Your task to perform on an android device: turn off location history Image 0: 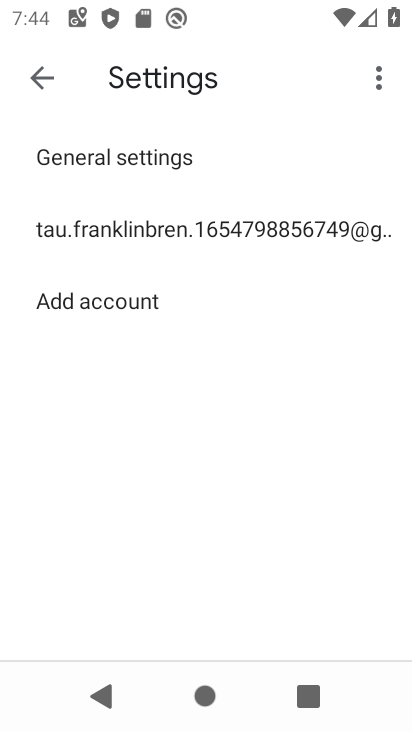
Step 0: press back button
Your task to perform on an android device: turn off location history Image 1: 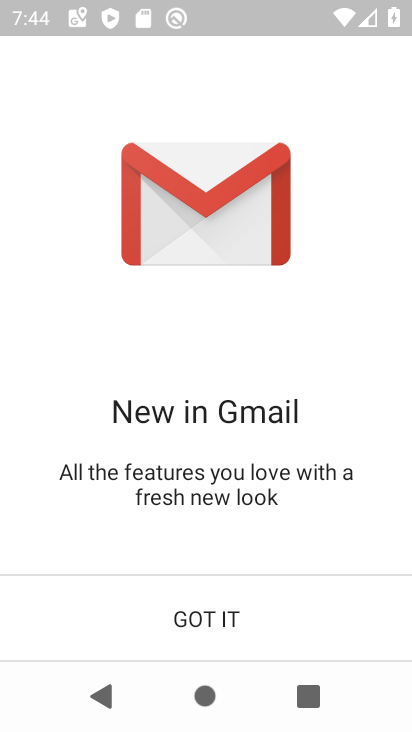
Step 1: press back button
Your task to perform on an android device: turn off location history Image 2: 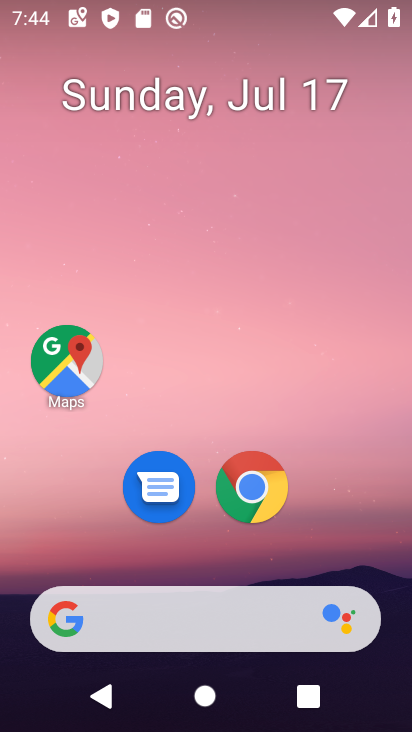
Step 2: drag from (148, 567) to (195, 12)
Your task to perform on an android device: turn off location history Image 3: 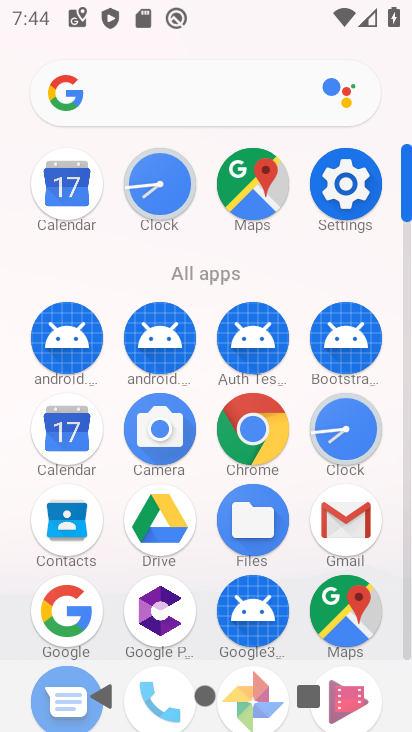
Step 3: click (340, 187)
Your task to perform on an android device: turn off location history Image 4: 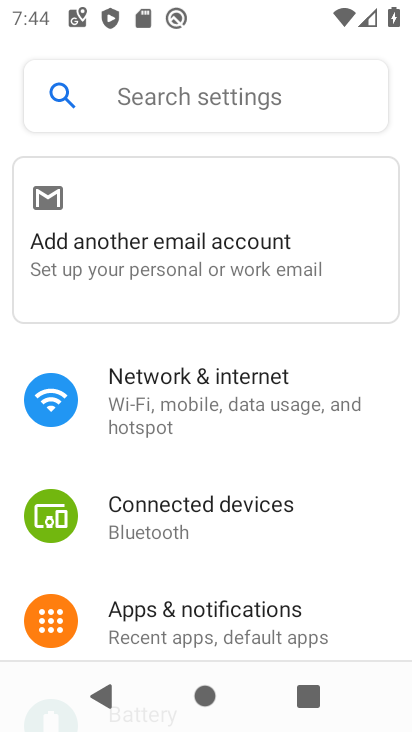
Step 4: drag from (218, 457) to (269, 100)
Your task to perform on an android device: turn off location history Image 5: 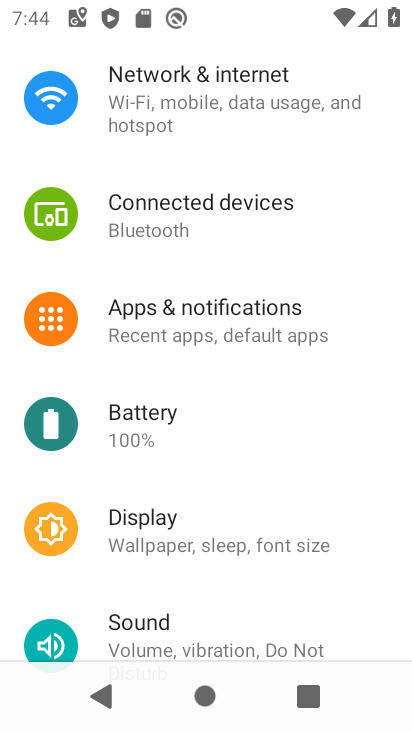
Step 5: drag from (186, 586) to (289, 100)
Your task to perform on an android device: turn off location history Image 6: 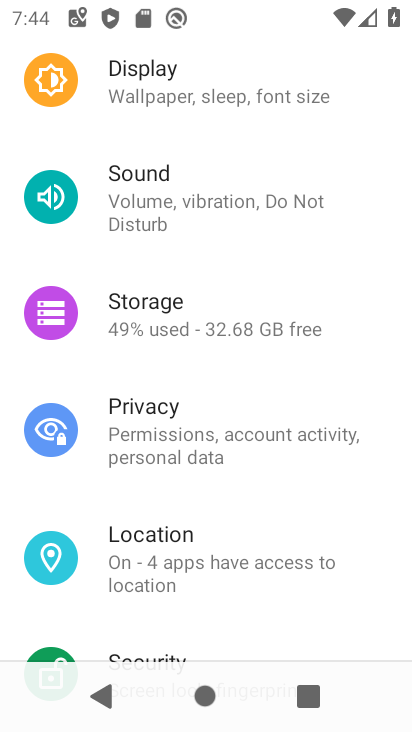
Step 6: click (165, 553)
Your task to perform on an android device: turn off location history Image 7: 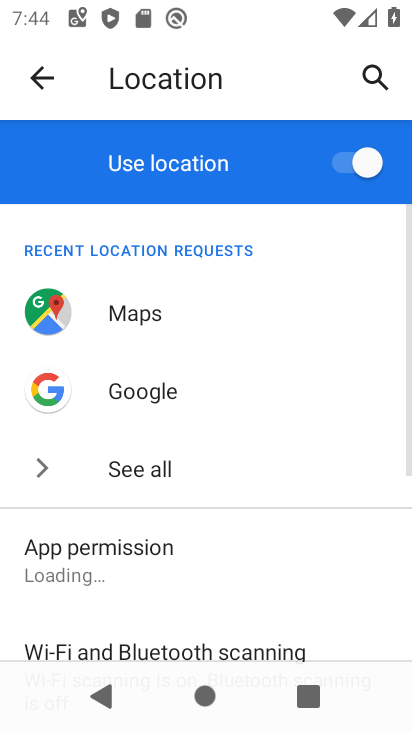
Step 7: drag from (160, 623) to (258, 57)
Your task to perform on an android device: turn off location history Image 8: 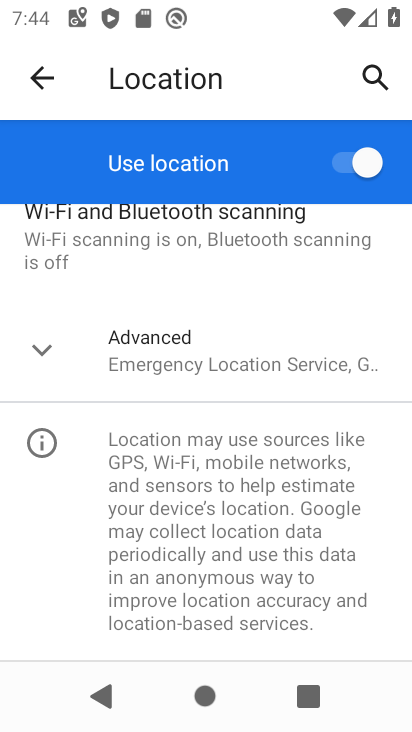
Step 8: click (137, 364)
Your task to perform on an android device: turn off location history Image 9: 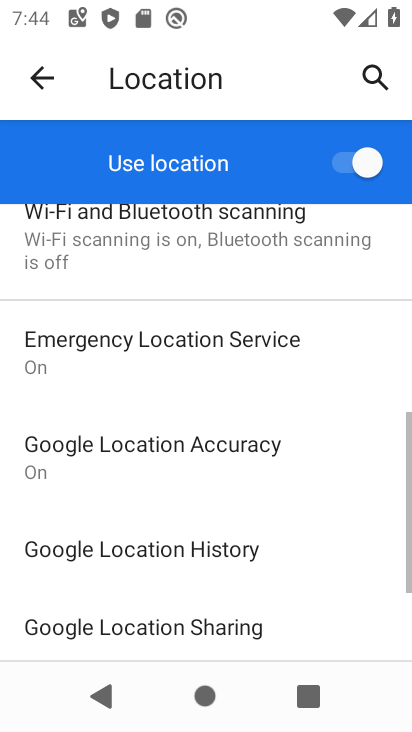
Step 9: click (172, 550)
Your task to perform on an android device: turn off location history Image 10: 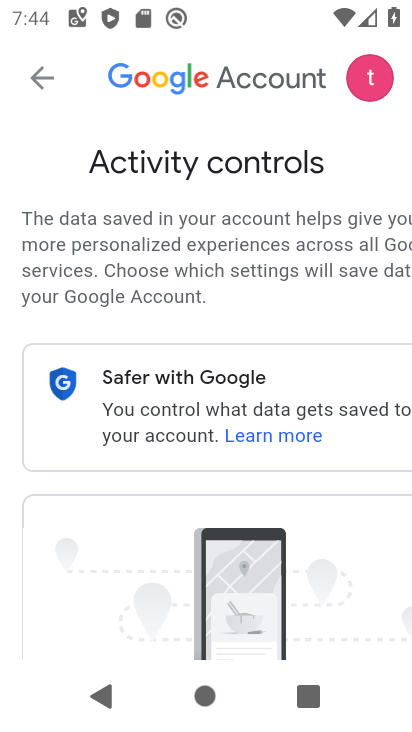
Step 10: task complete